Your task to perform on an android device: set default search engine in the chrome app Image 0: 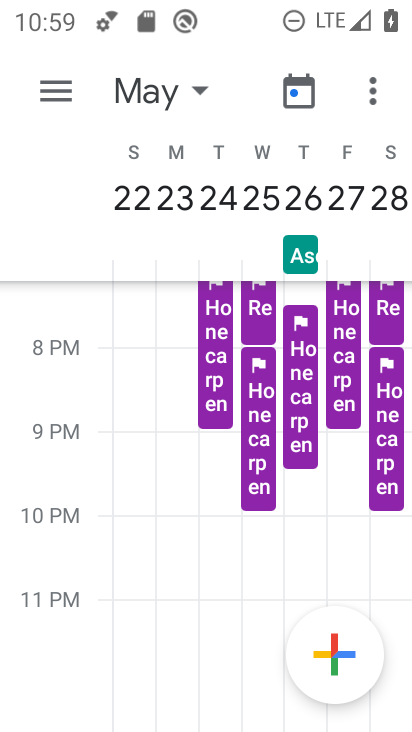
Step 0: press home button
Your task to perform on an android device: set default search engine in the chrome app Image 1: 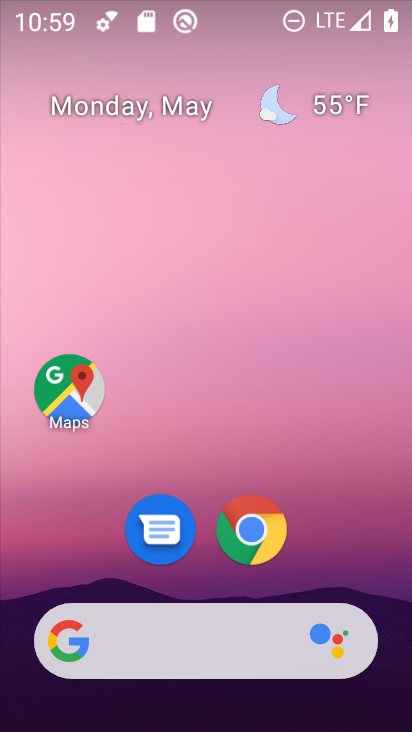
Step 1: click (275, 538)
Your task to perform on an android device: set default search engine in the chrome app Image 2: 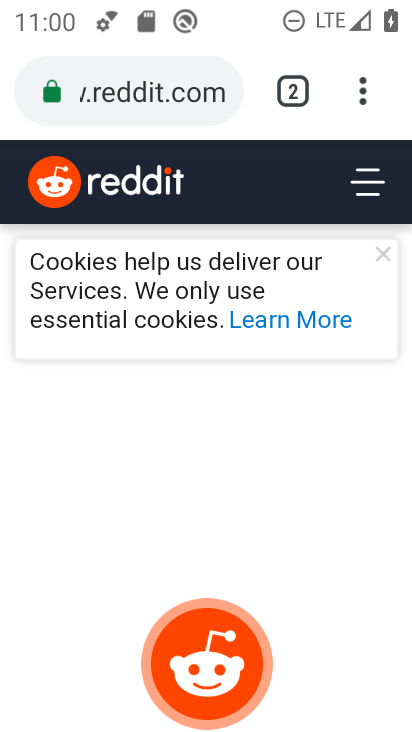
Step 2: drag from (351, 93) to (86, 550)
Your task to perform on an android device: set default search engine in the chrome app Image 3: 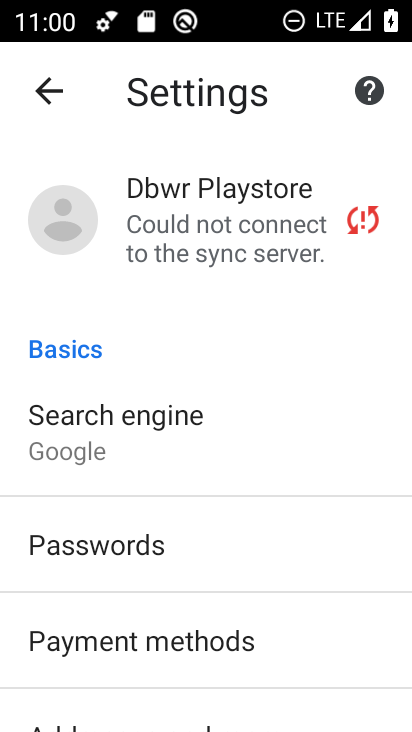
Step 3: click (96, 430)
Your task to perform on an android device: set default search engine in the chrome app Image 4: 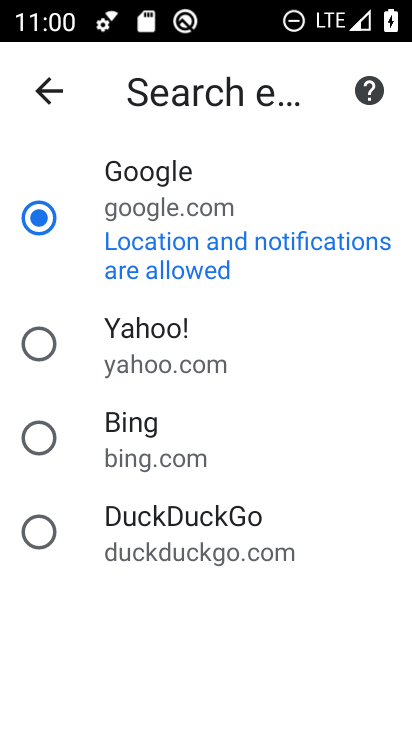
Step 4: click (34, 346)
Your task to perform on an android device: set default search engine in the chrome app Image 5: 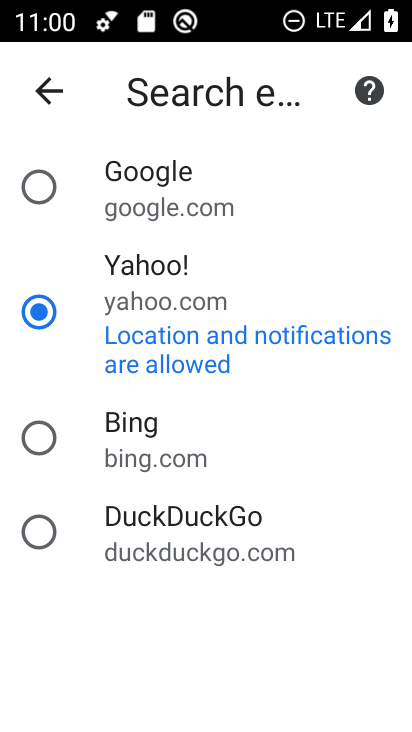
Step 5: task complete